Your task to perform on an android device: Show the shopping cart on walmart. Image 0: 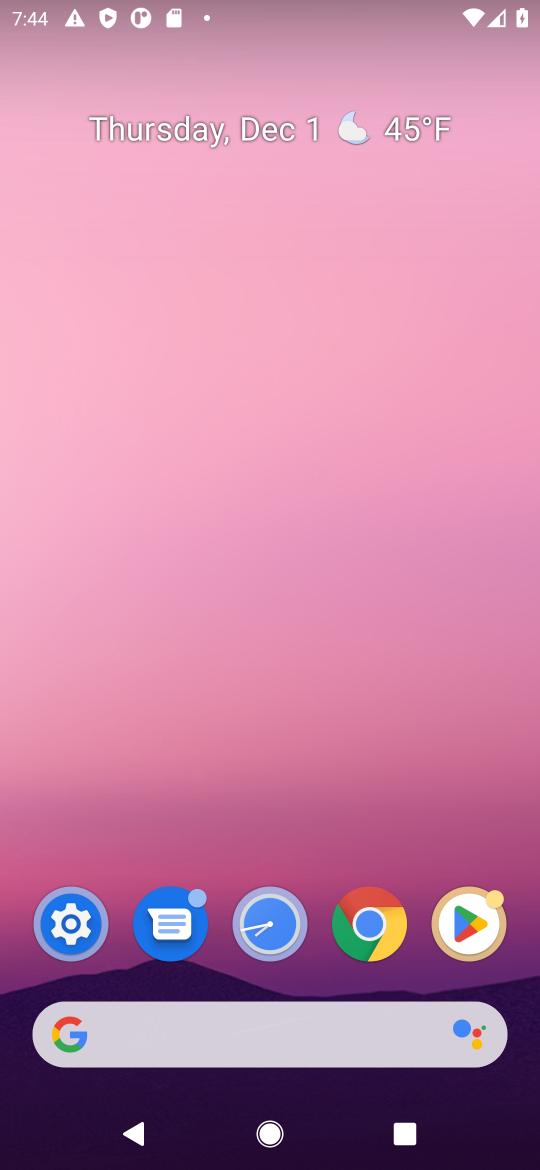
Step 0: click (242, 1027)
Your task to perform on an android device: Show the shopping cart on walmart. Image 1: 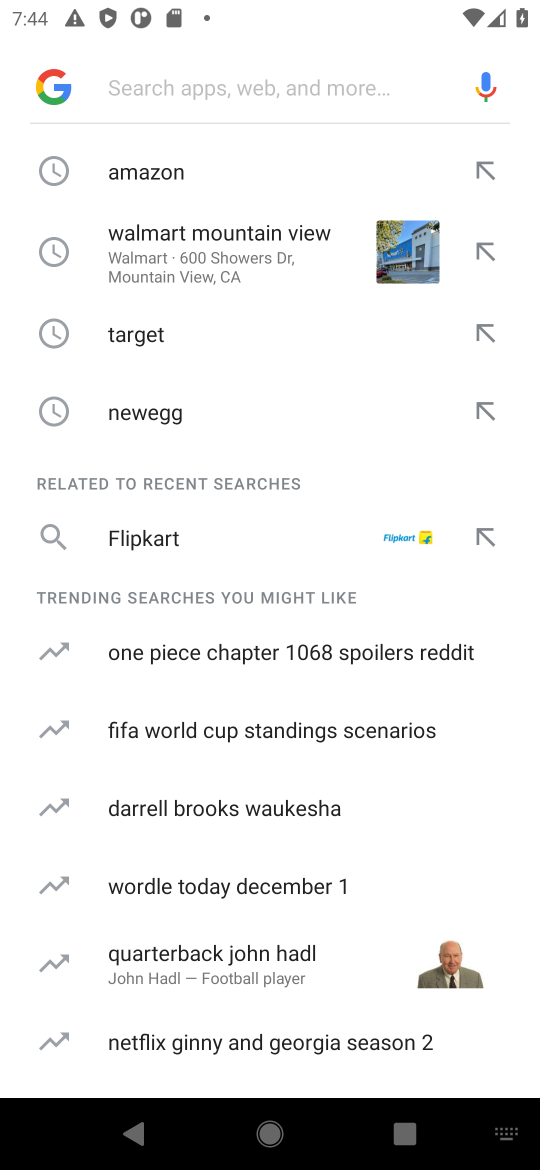
Step 1: type "walmart"
Your task to perform on an android device: Show the shopping cart on walmart. Image 2: 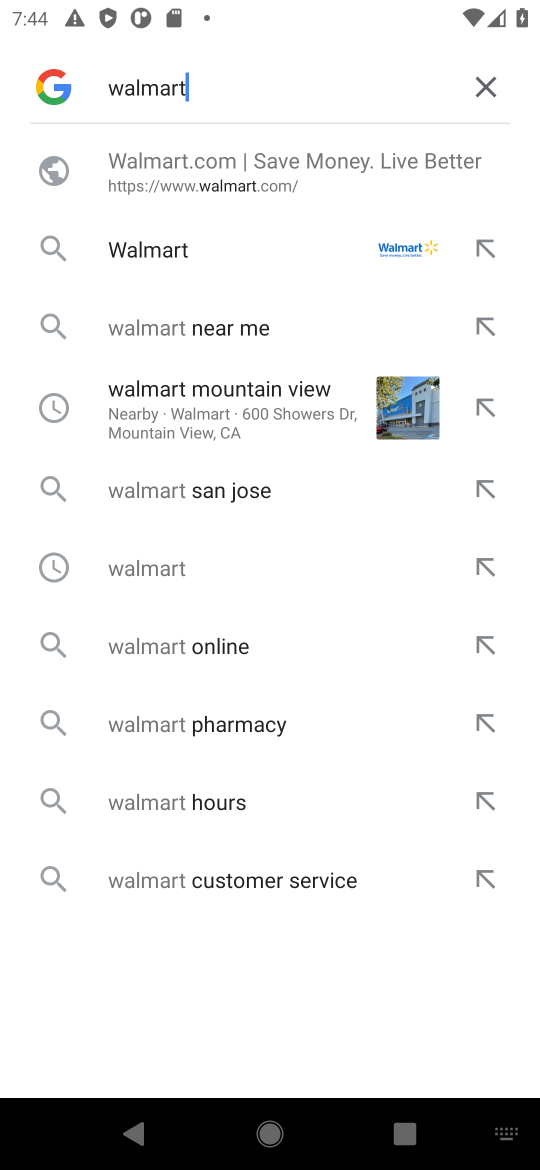
Step 2: click (265, 156)
Your task to perform on an android device: Show the shopping cart on walmart. Image 3: 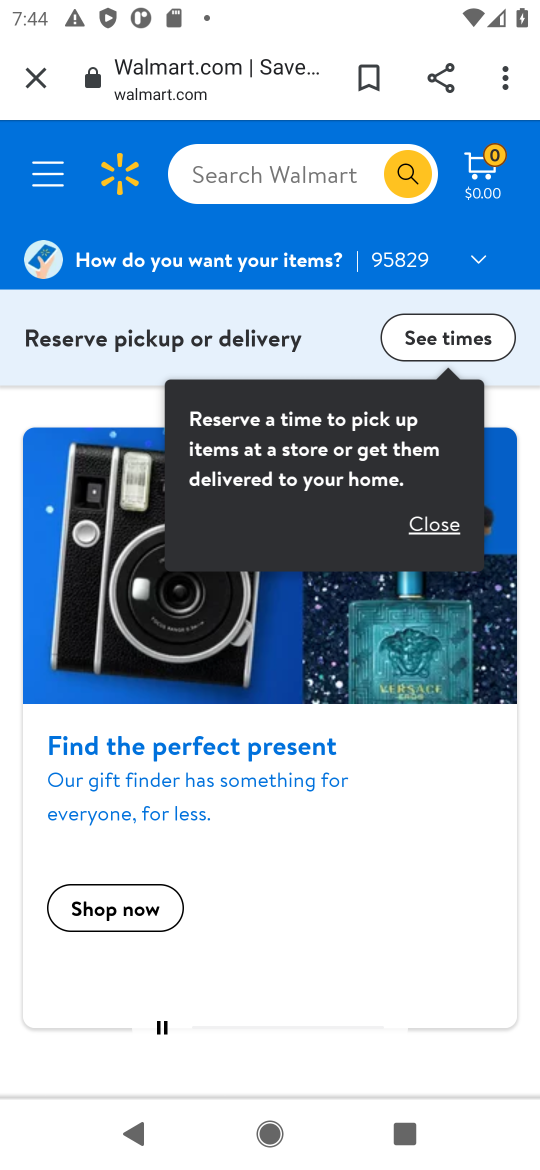
Step 3: click (265, 191)
Your task to perform on an android device: Show the shopping cart on walmart. Image 4: 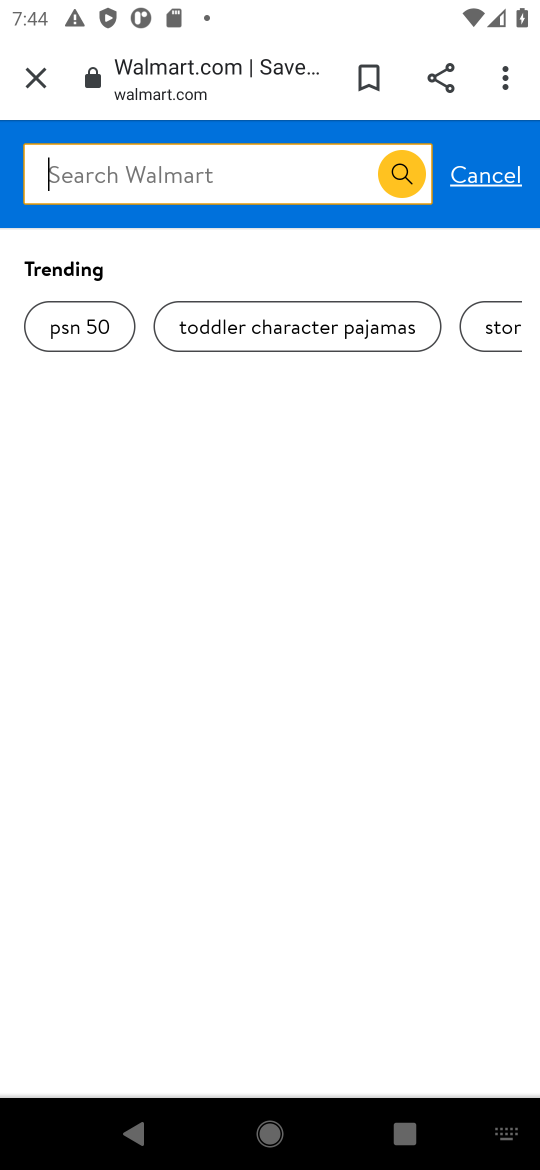
Step 4: click (477, 195)
Your task to perform on an android device: Show the shopping cart on walmart. Image 5: 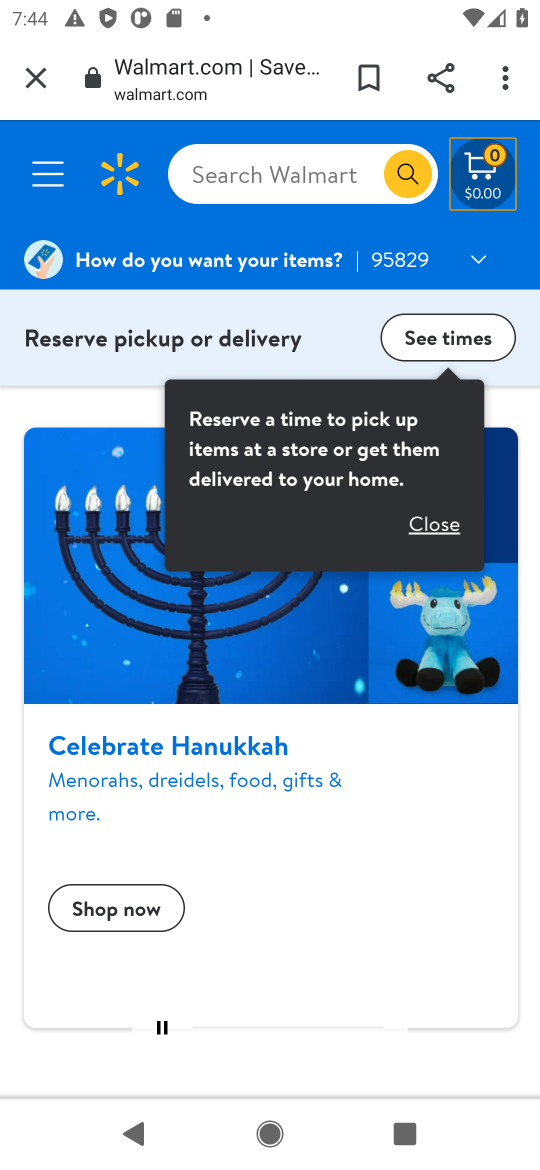
Step 5: click (486, 195)
Your task to perform on an android device: Show the shopping cart on walmart. Image 6: 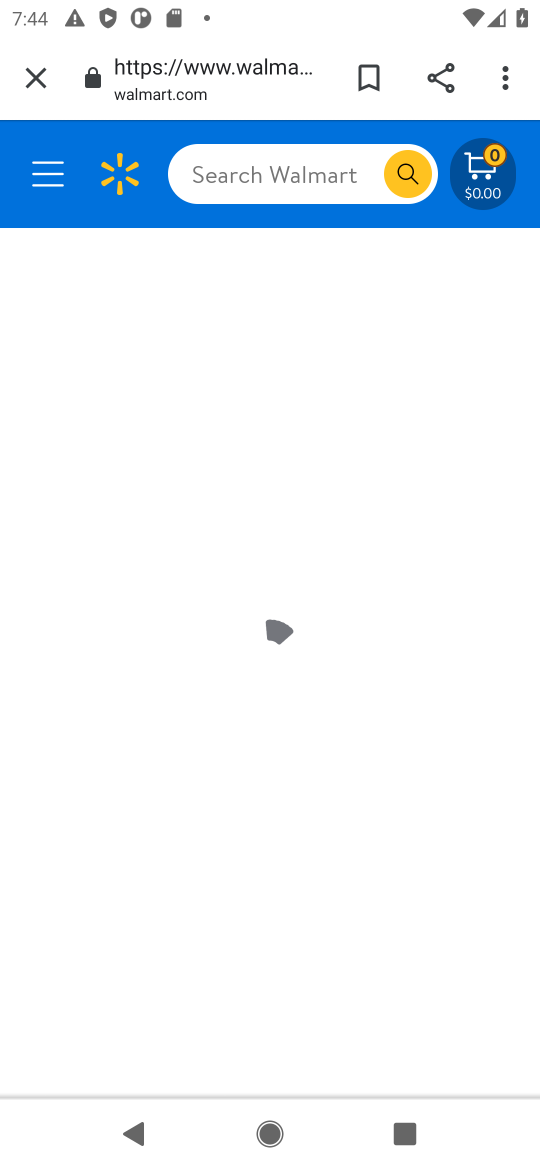
Step 6: task complete